Your task to perform on an android device: turn on bluetooth scan Image 0: 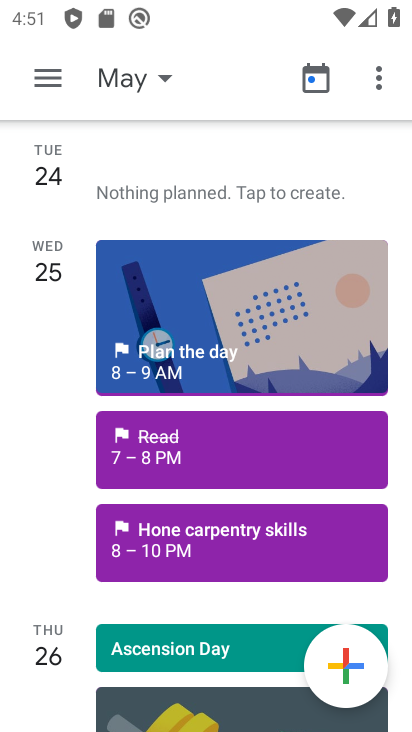
Step 0: press home button
Your task to perform on an android device: turn on bluetooth scan Image 1: 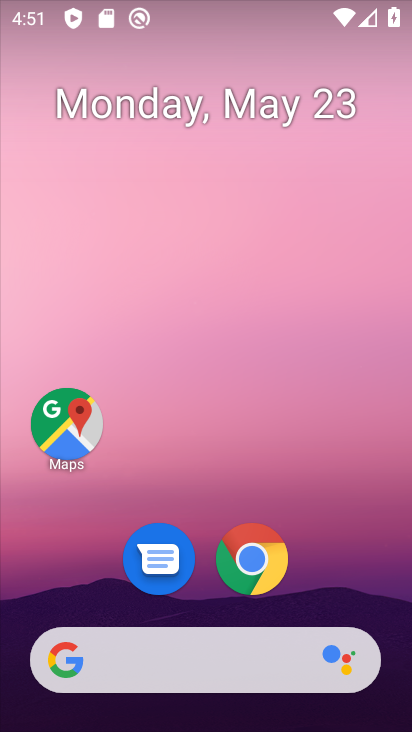
Step 1: drag from (203, 67) to (206, 12)
Your task to perform on an android device: turn on bluetooth scan Image 2: 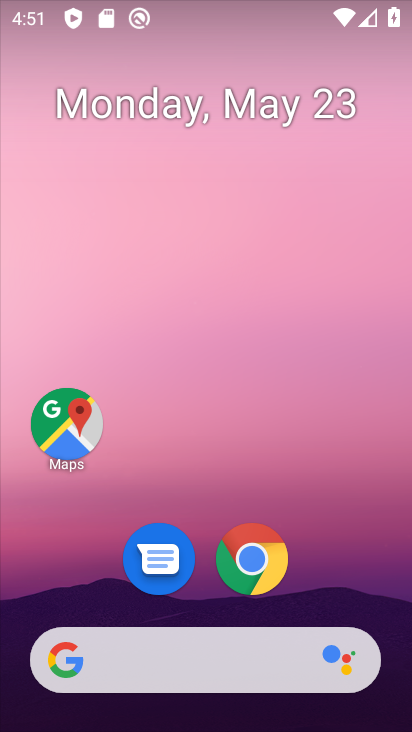
Step 2: drag from (285, 638) to (302, 2)
Your task to perform on an android device: turn on bluetooth scan Image 3: 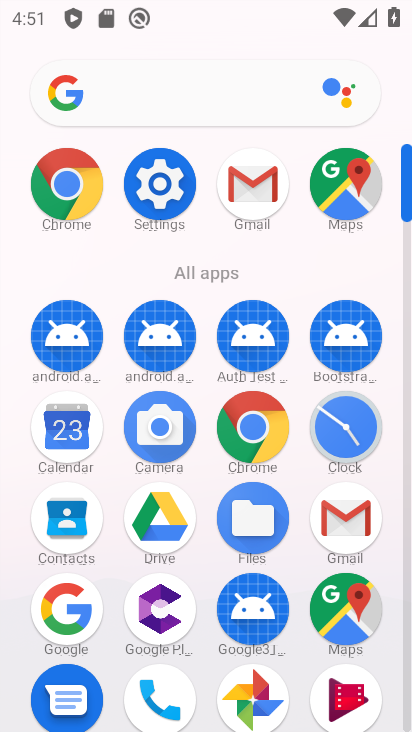
Step 3: click (165, 181)
Your task to perform on an android device: turn on bluetooth scan Image 4: 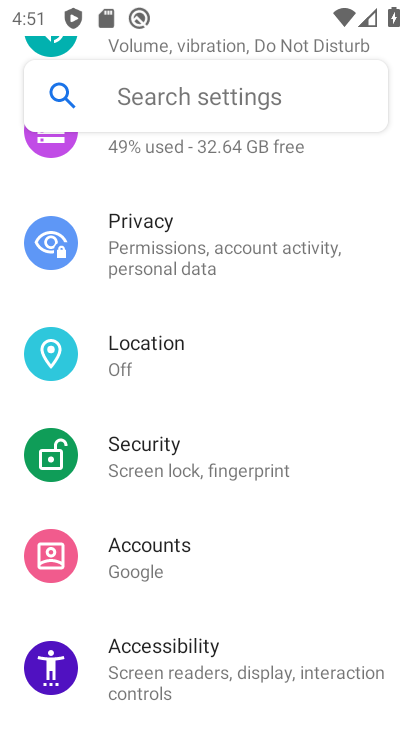
Step 4: drag from (269, 191) to (274, 696)
Your task to perform on an android device: turn on bluetooth scan Image 5: 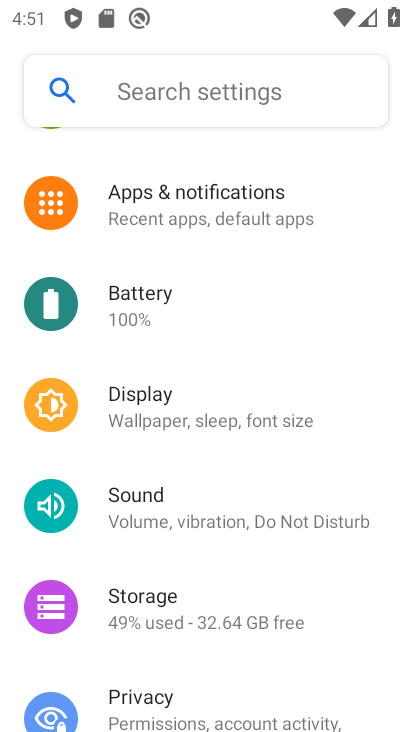
Step 5: drag from (213, 367) to (156, 707)
Your task to perform on an android device: turn on bluetooth scan Image 6: 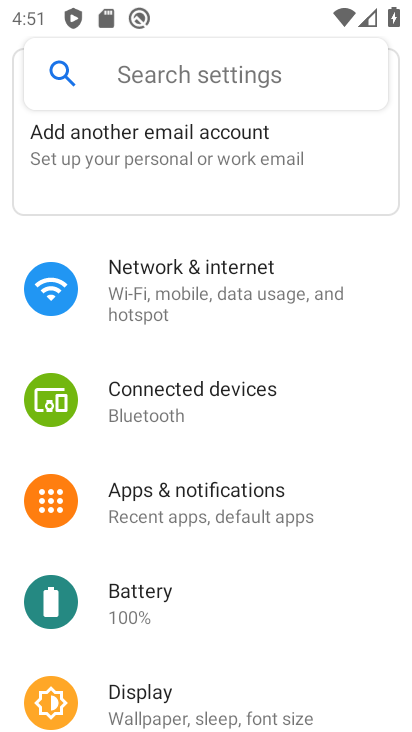
Step 6: drag from (203, 638) to (166, 124)
Your task to perform on an android device: turn on bluetooth scan Image 7: 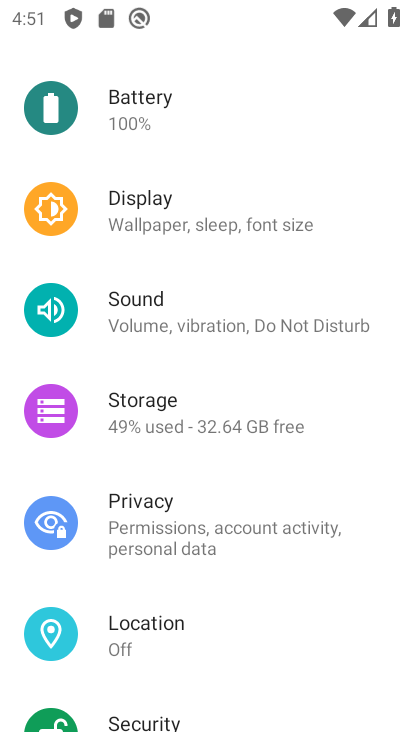
Step 7: drag from (204, 654) to (230, 273)
Your task to perform on an android device: turn on bluetooth scan Image 8: 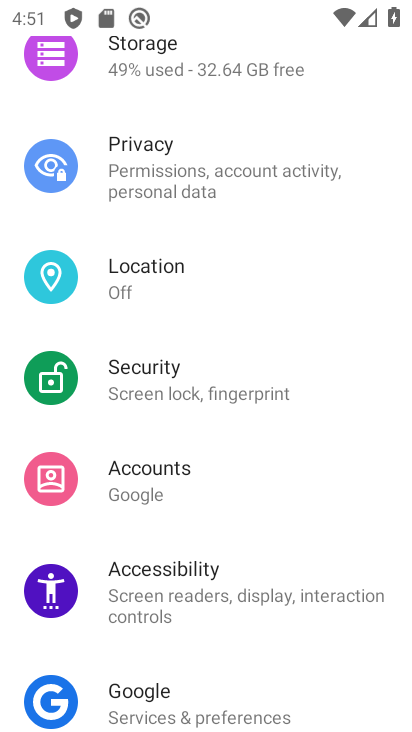
Step 8: click (182, 281)
Your task to perform on an android device: turn on bluetooth scan Image 9: 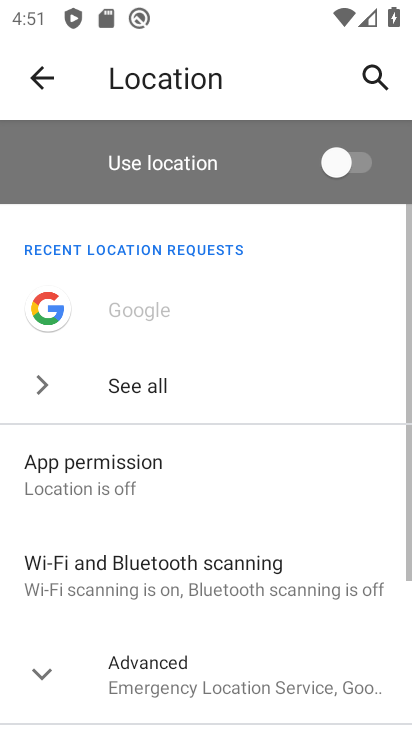
Step 9: drag from (279, 638) to (313, 142)
Your task to perform on an android device: turn on bluetooth scan Image 10: 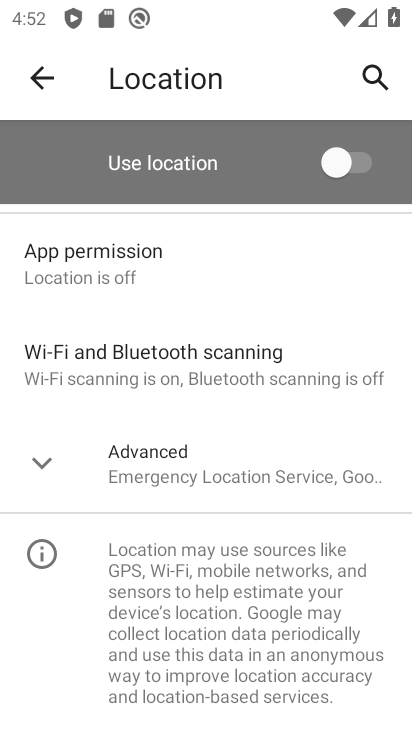
Step 10: click (171, 370)
Your task to perform on an android device: turn on bluetooth scan Image 11: 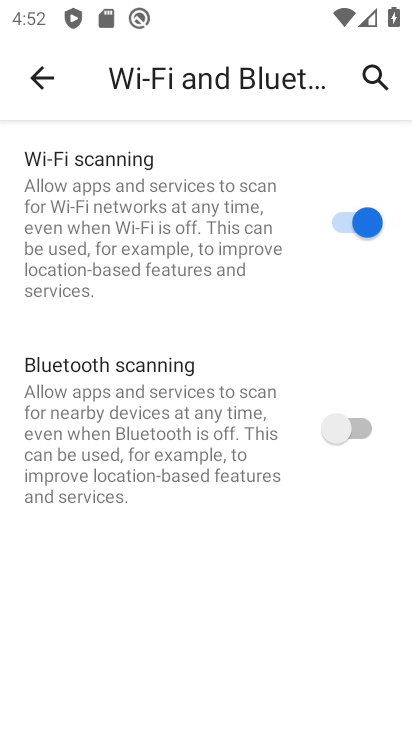
Step 11: click (365, 427)
Your task to perform on an android device: turn on bluetooth scan Image 12: 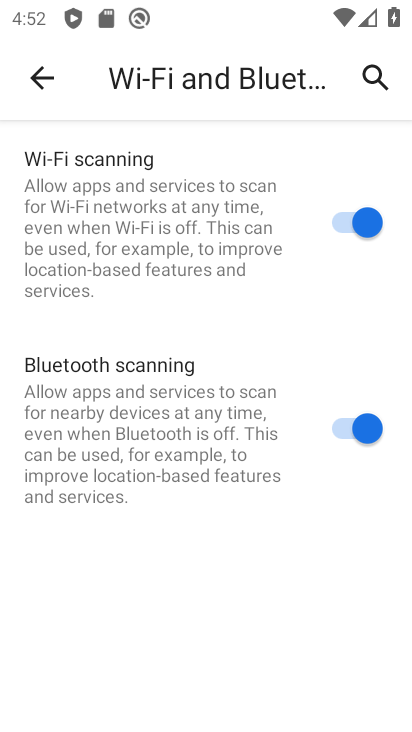
Step 12: task complete